Your task to perform on an android device: allow cookies in the chrome app Image 0: 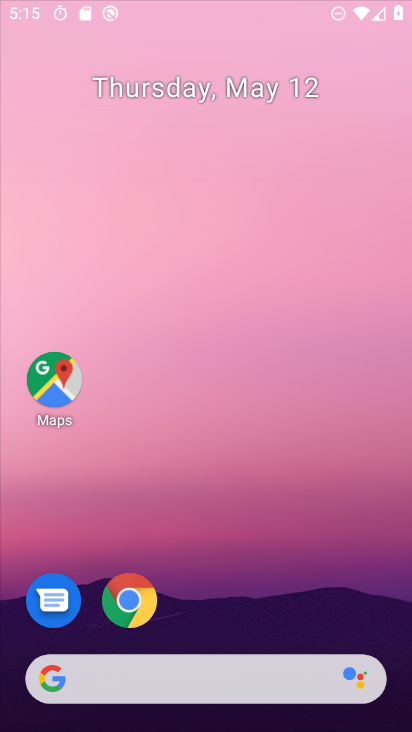
Step 0: click (270, 275)
Your task to perform on an android device: allow cookies in the chrome app Image 1: 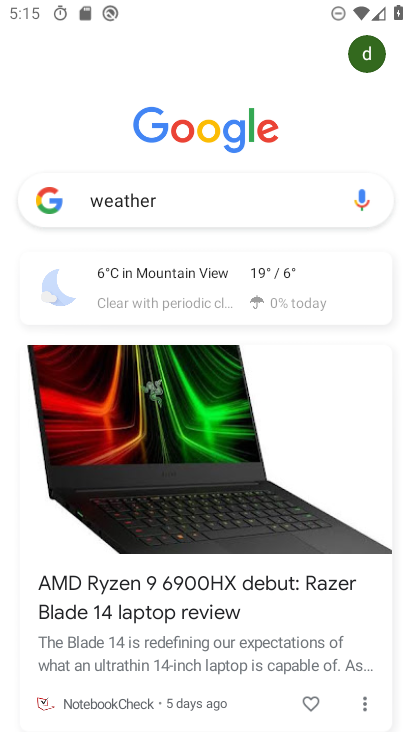
Step 1: drag from (265, 562) to (313, 224)
Your task to perform on an android device: allow cookies in the chrome app Image 2: 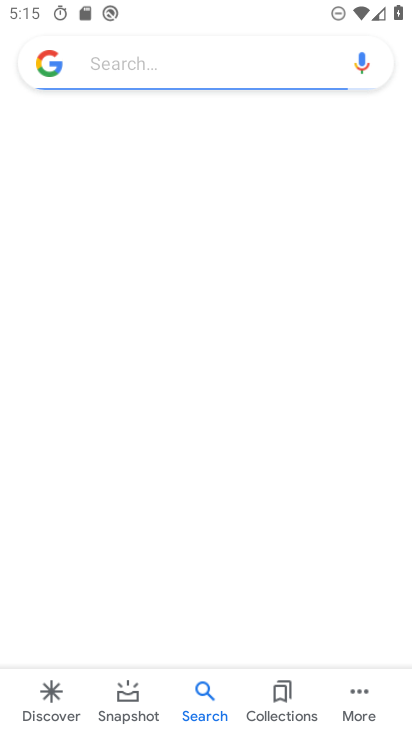
Step 2: press home button
Your task to perform on an android device: allow cookies in the chrome app Image 3: 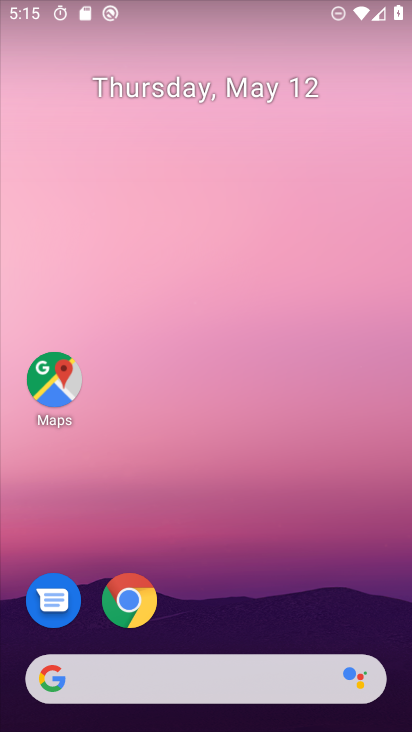
Step 3: drag from (211, 618) to (265, 189)
Your task to perform on an android device: allow cookies in the chrome app Image 4: 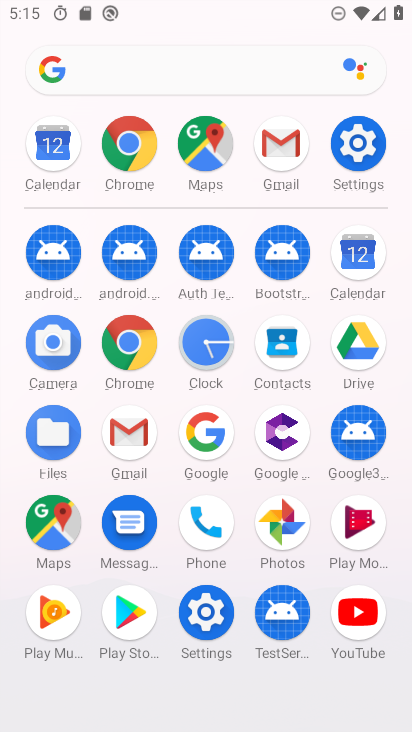
Step 4: click (116, 352)
Your task to perform on an android device: allow cookies in the chrome app Image 5: 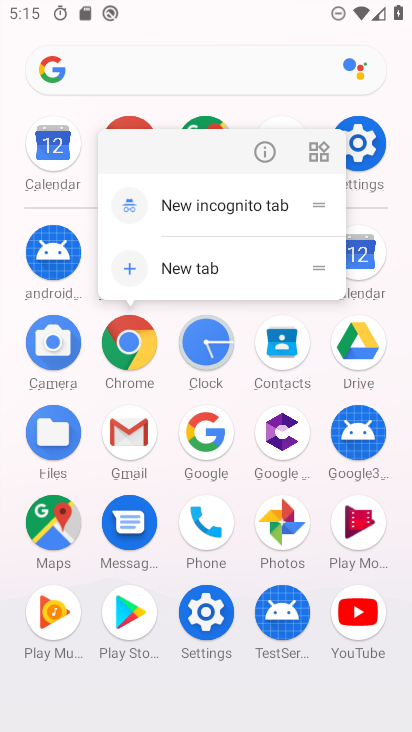
Step 5: click (262, 148)
Your task to perform on an android device: allow cookies in the chrome app Image 6: 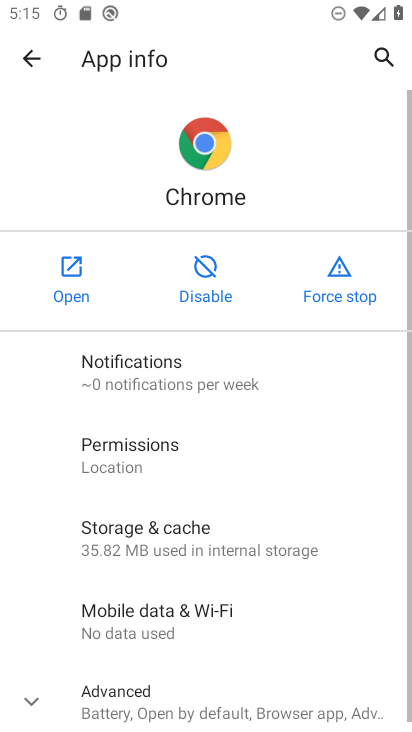
Step 6: click (86, 285)
Your task to perform on an android device: allow cookies in the chrome app Image 7: 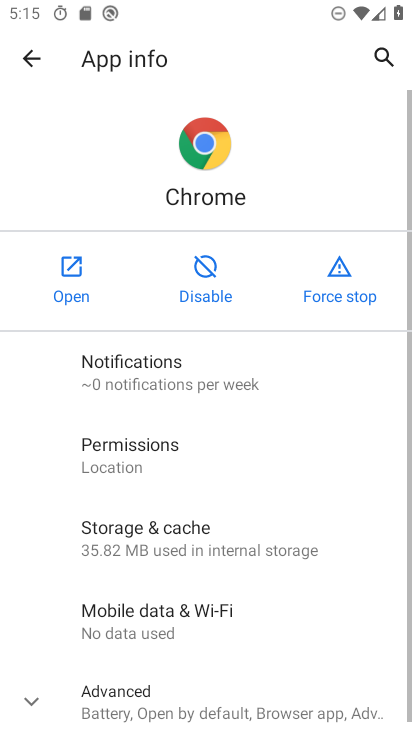
Step 7: click (86, 285)
Your task to perform on an android device: allow cookies in the chrome app Image 8: 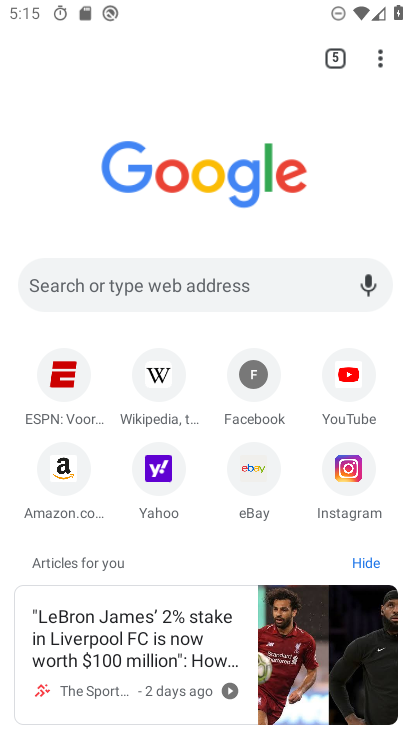
Step 8: click (382, 56)
Your task to perform on an android device: allow cookies in the chrome app Image 9: 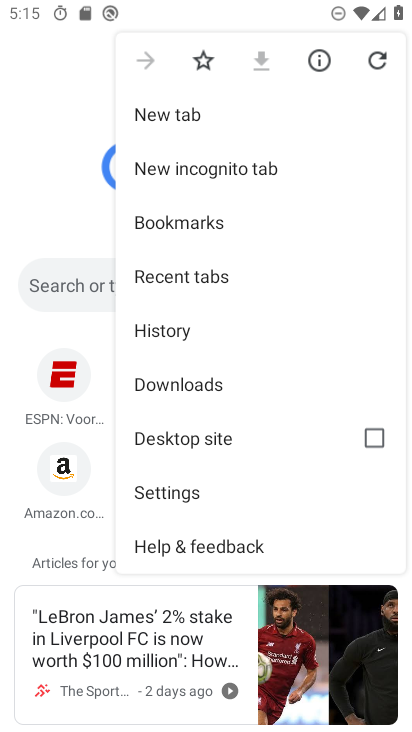
Step 9: click (197, 491)
Your task to perform on an android device: allow cookies in the chrome app Image 10: 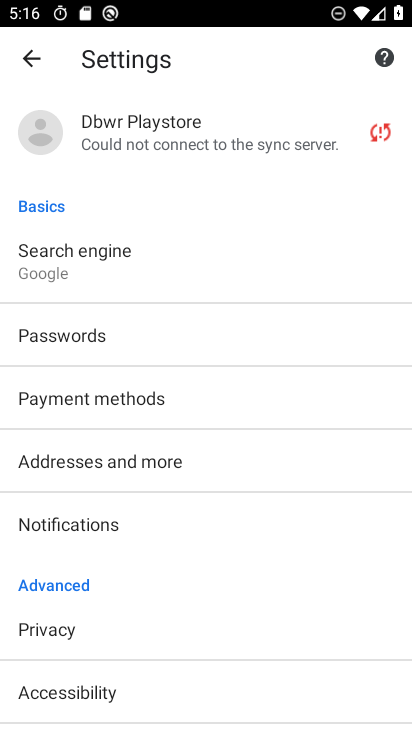
Step 10: drag from (199, 584) to (286, 187)
Your task to perform on an android device: allow cookies in the chrome app Image 11: 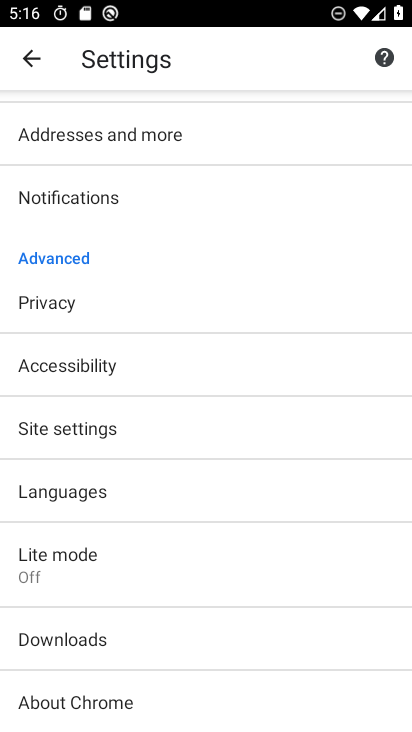
Step 11: click (94, 431)
Your task to perform on an android device: allow cookies in the chrome app Image 12: 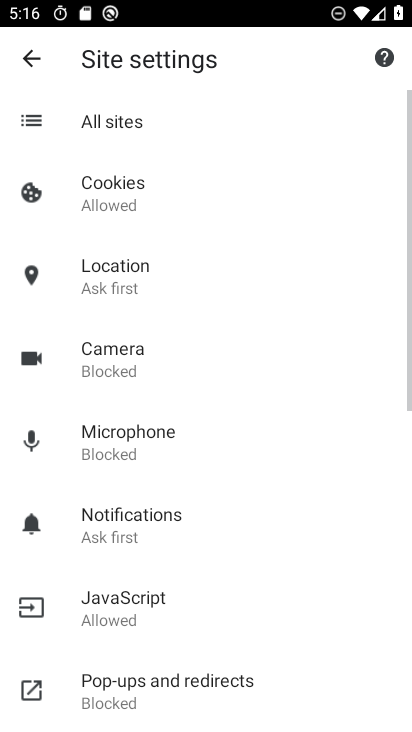
Step 12: click (198, 211)
Your task to perform on an android device: allow cookies in the chrome app Image 13: 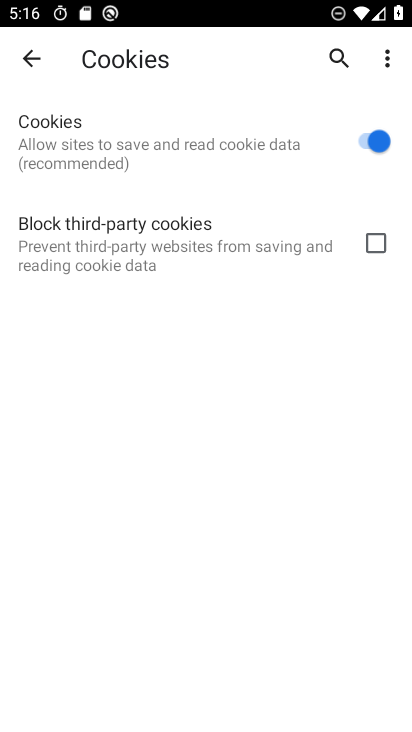
Step 13: task complete